Your task to perform on an android device: Search for vegetarian restaurants on Maps Image 0: 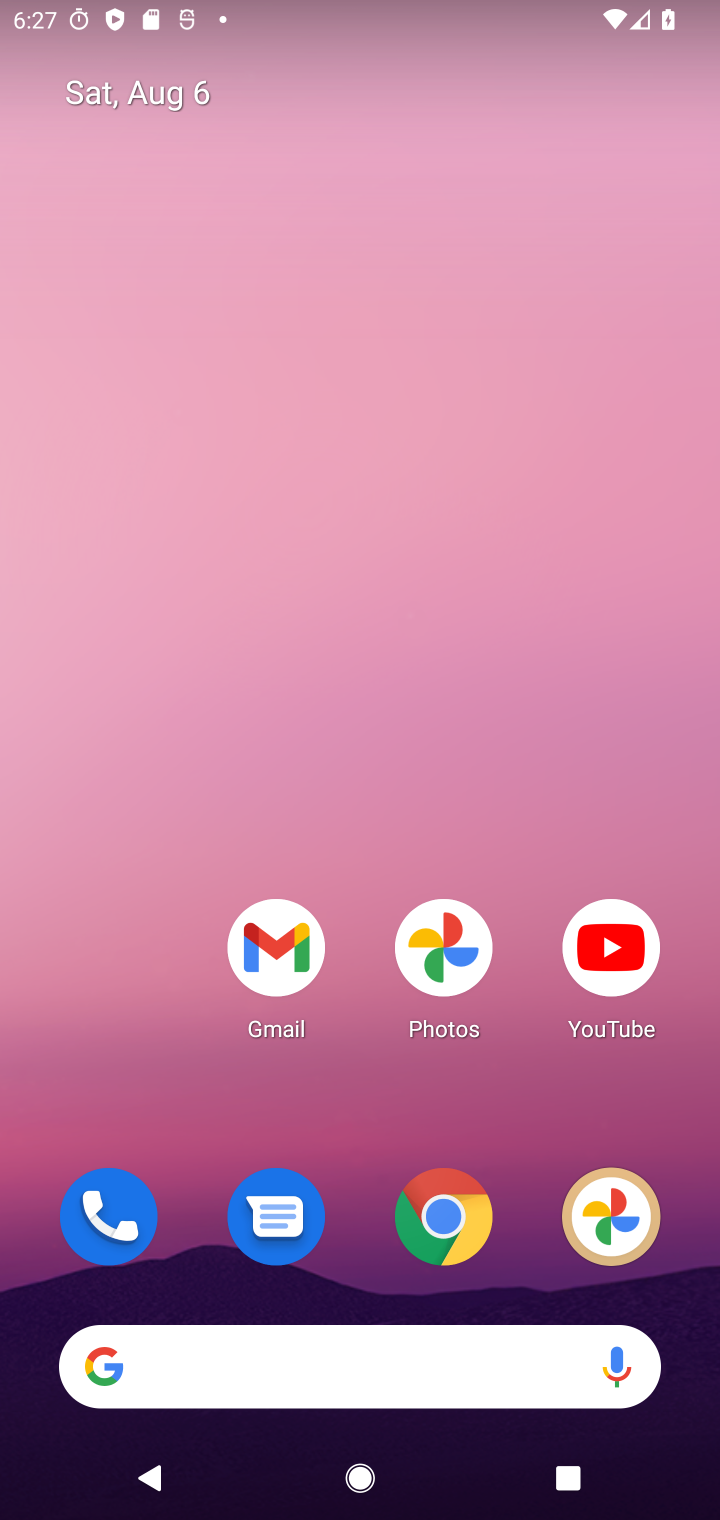
Step 0: drag from (551, 1115) to (494, 63)
Your task to perform on an android device: Search for vegetarian restaurants on Maps Image 1: 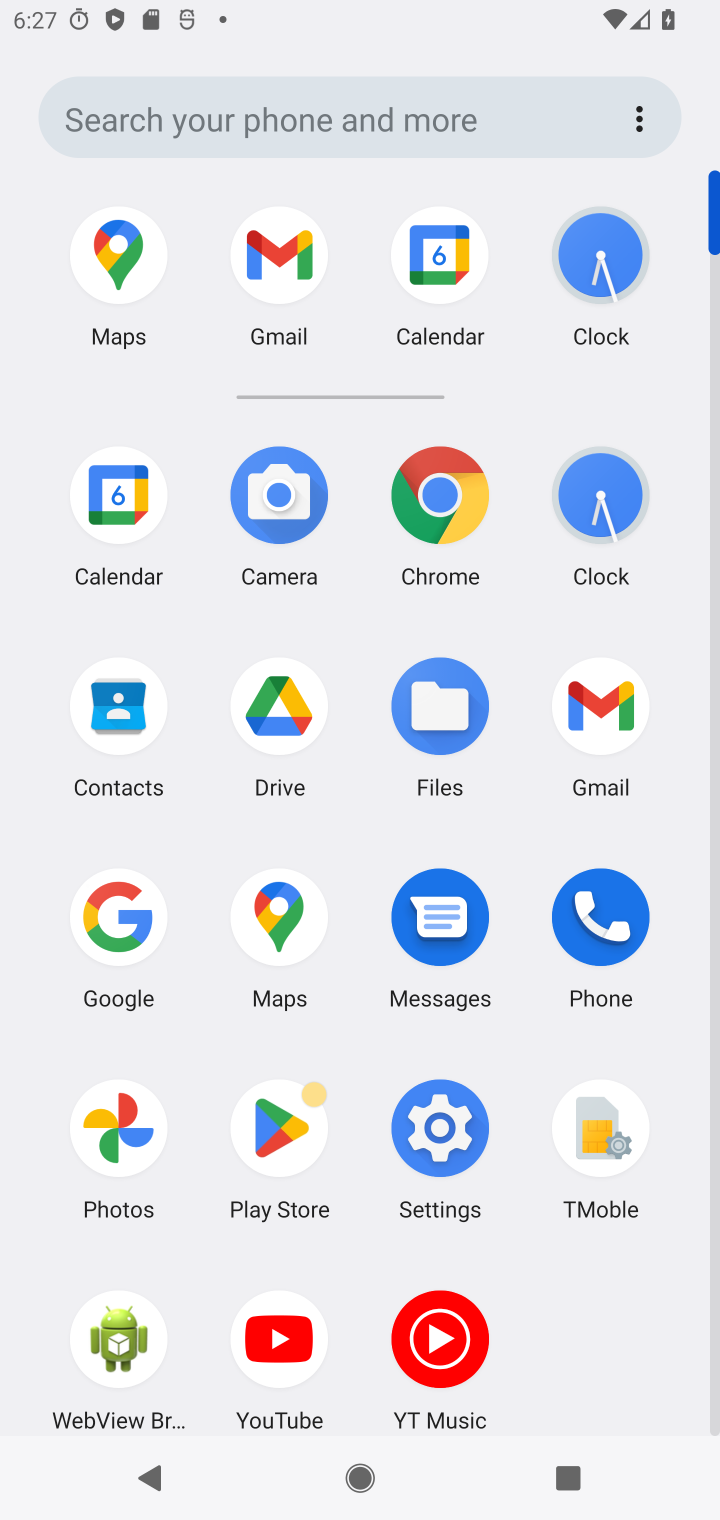
Step 1: click (275, 910)
Your task to perform on an android device: Search for vegetarian restaurants on Maps Image 2: 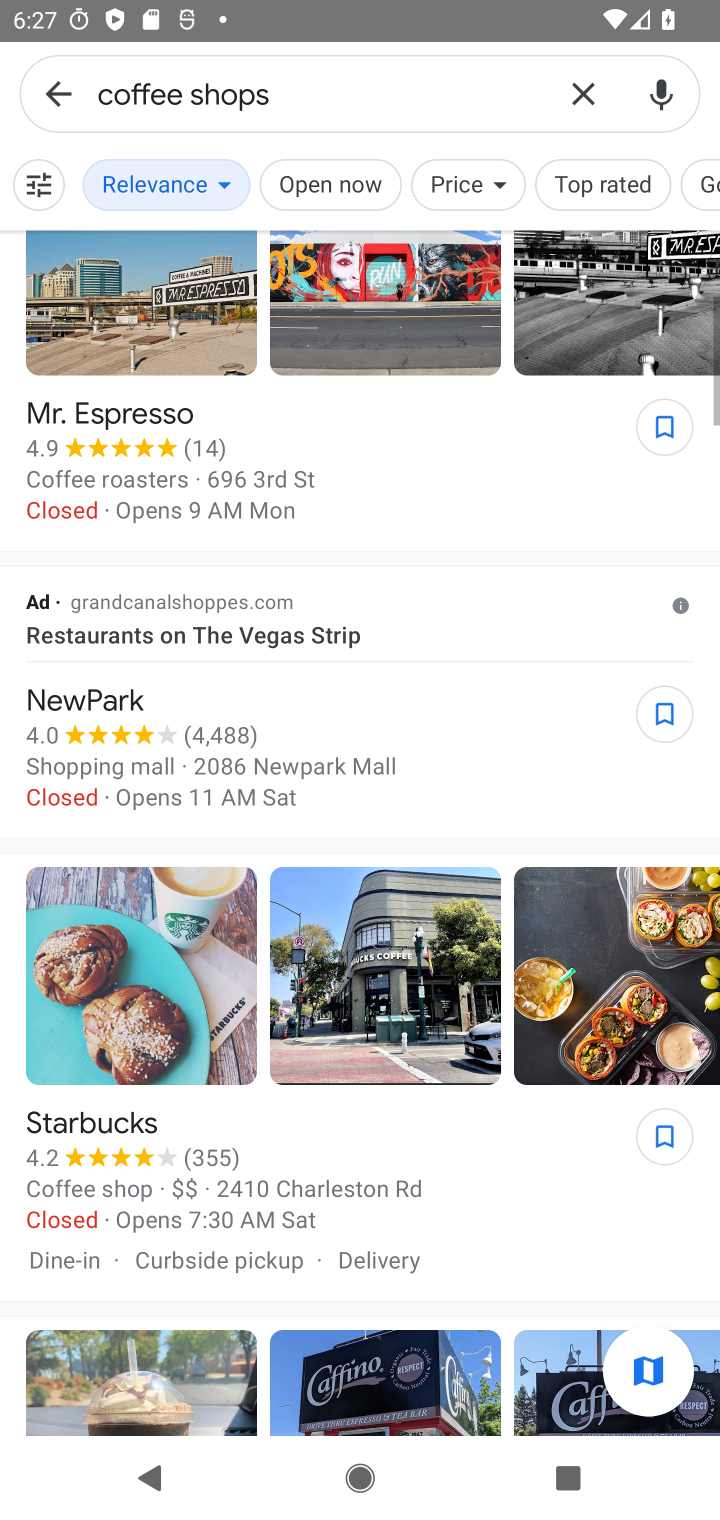
Step 2: click (378, 76)
Your task to perform on an android device: Search for vegetarian restaurants on Maps Image 3: 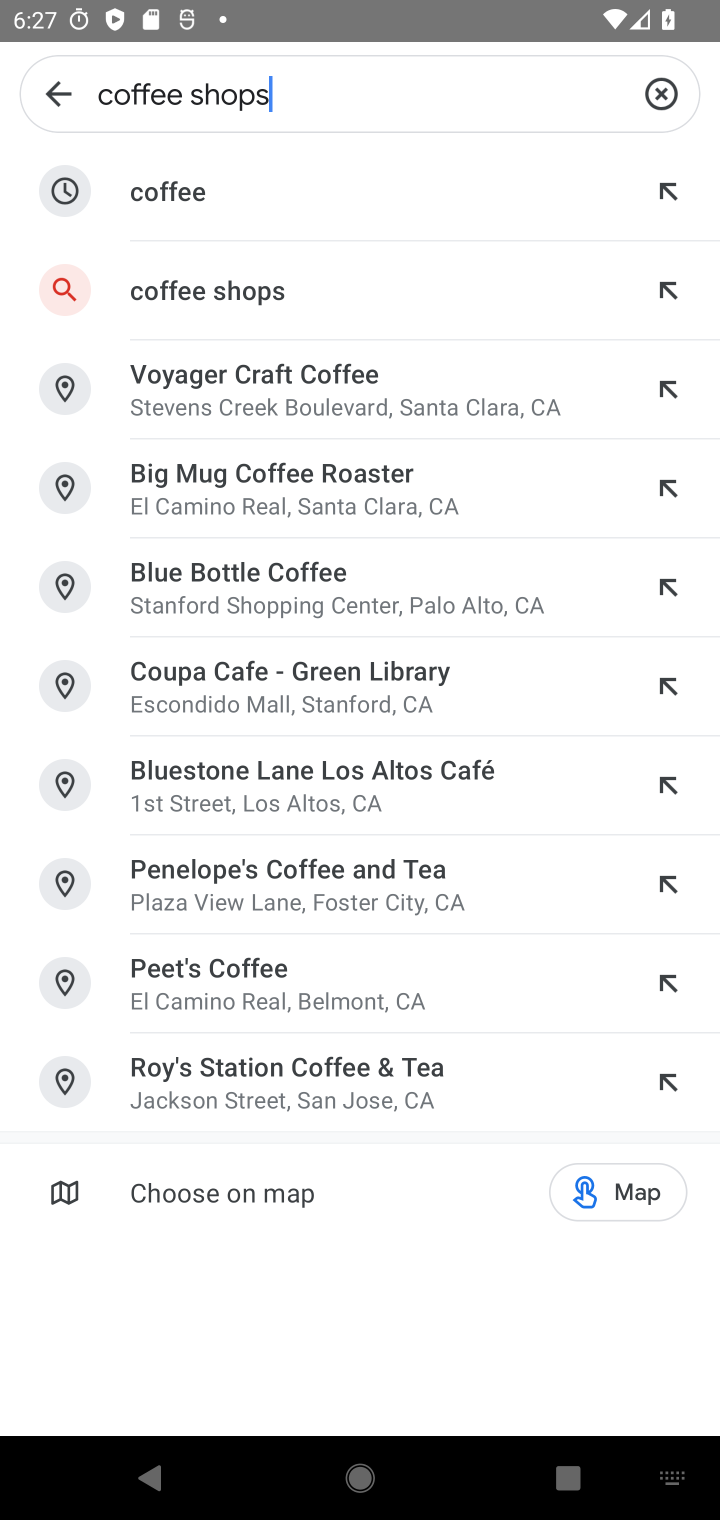
Step 3: click (671, 97)
Your task to perform on an android device: Search for vegetarian restaurants on Maps Image 4: 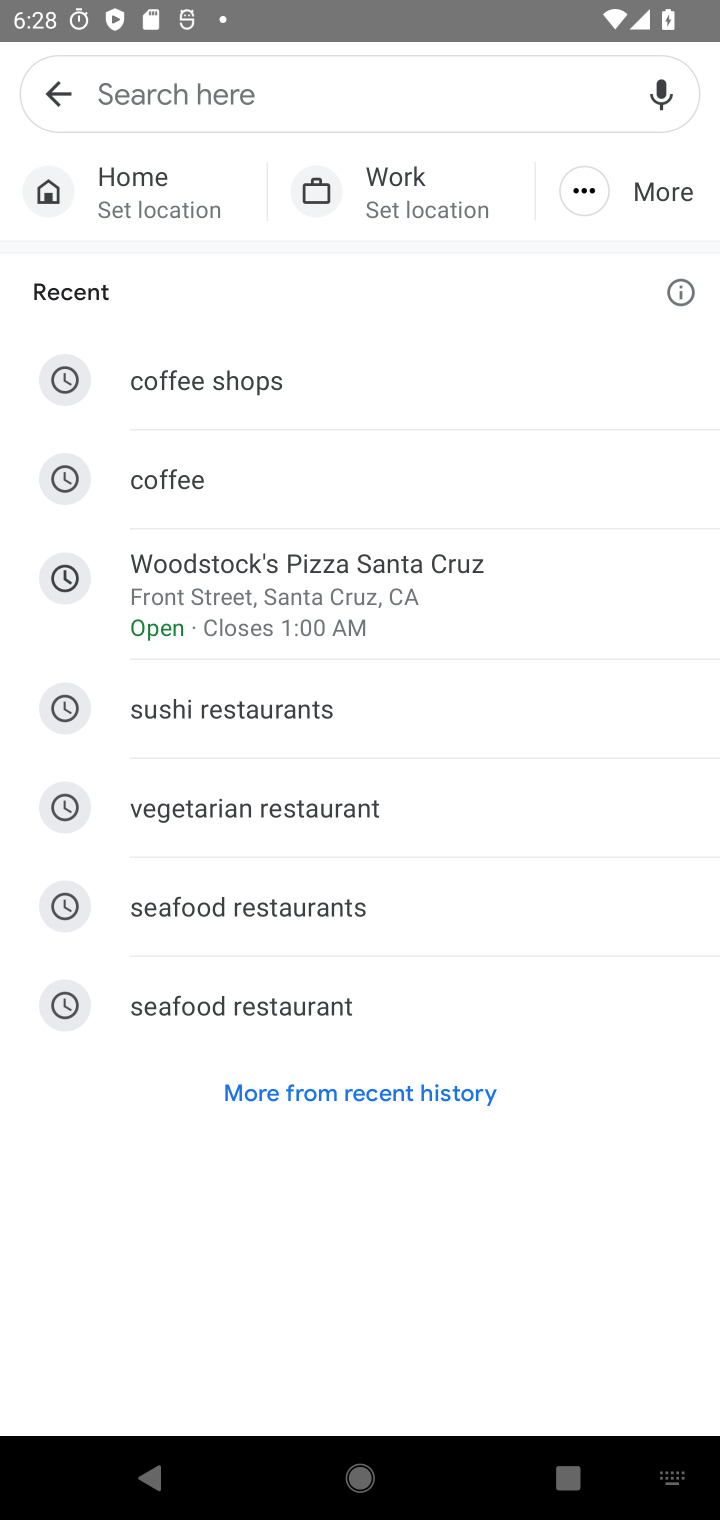
Step 4: type "vegetarian restaurants"
Your task to perform on an android device: Search for vegetarian restaurants on Maps Image 5: 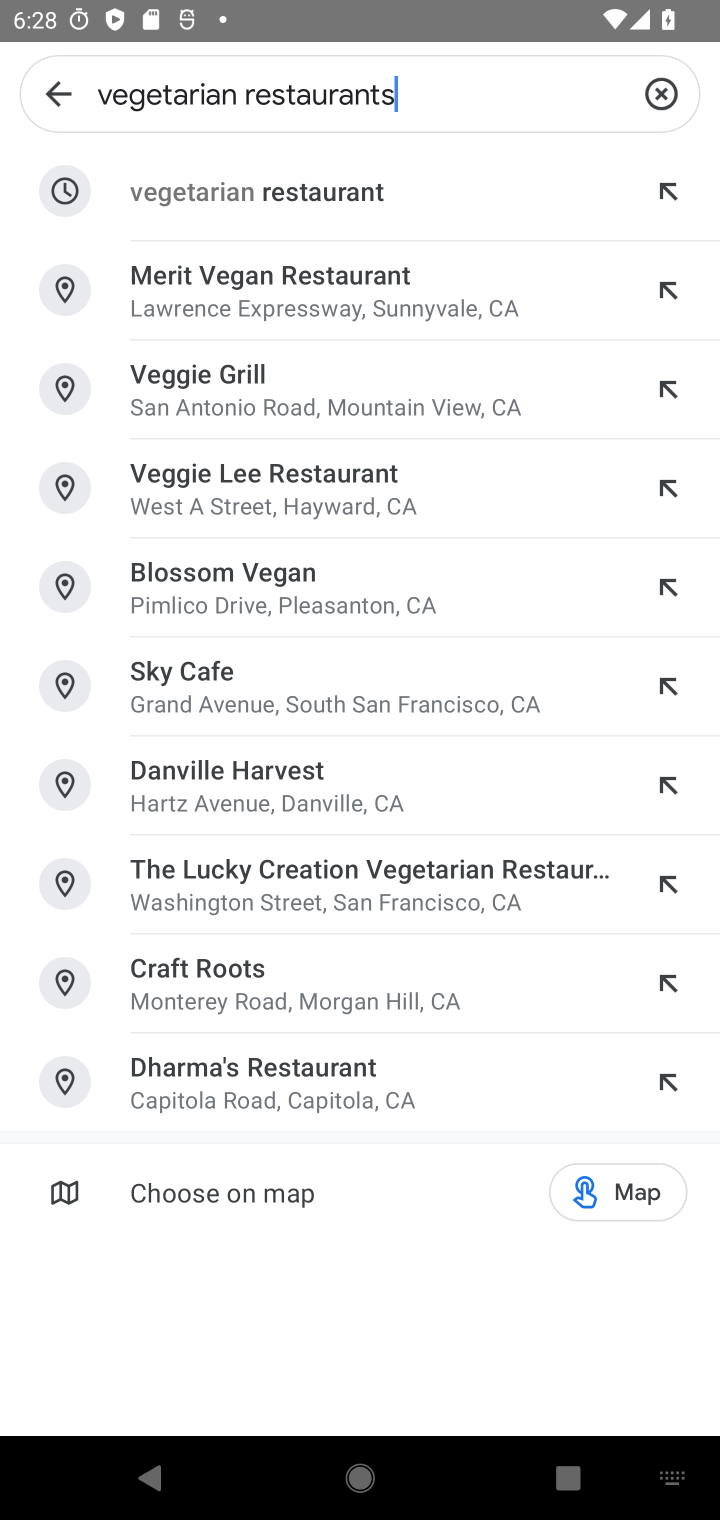
Step 5: press enter
Your task to perform on an android device: Search for vegetarian restaurants on Maps Image 6: 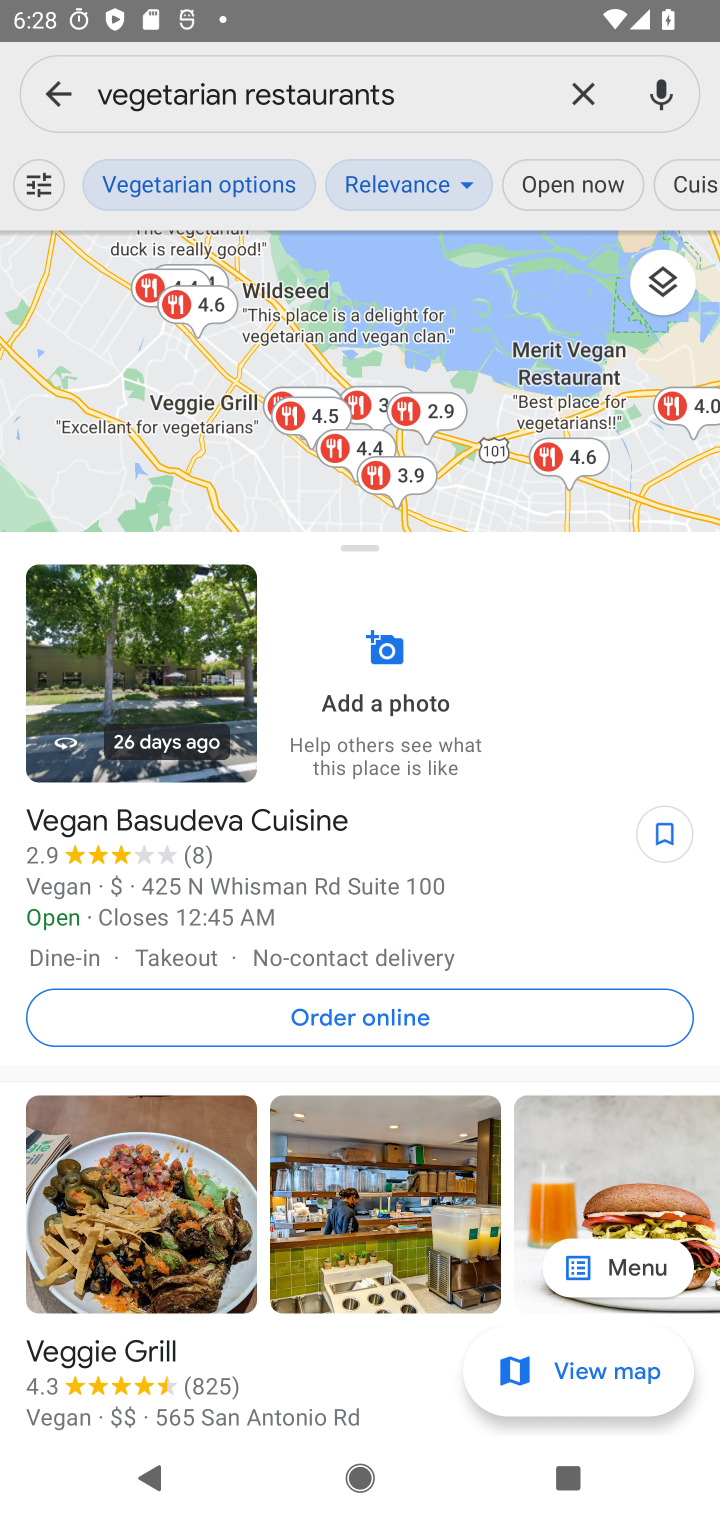
Step 6: task complete